Your task to perform on an android device: turn off sleep mode Image 0: 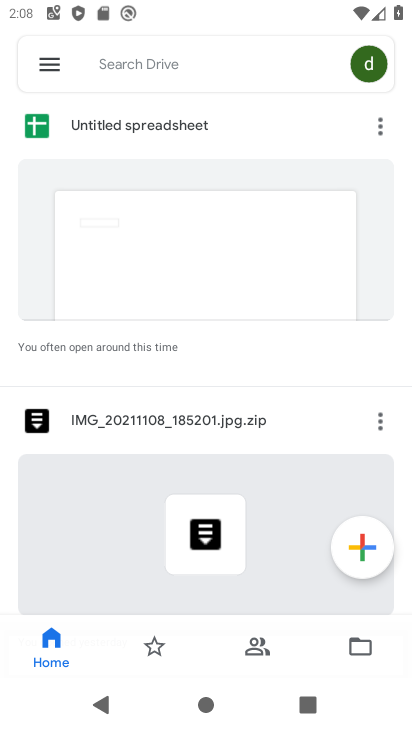
Step 0: press home button
Your task to perform on an android device: turn off sleep mode Image 1: 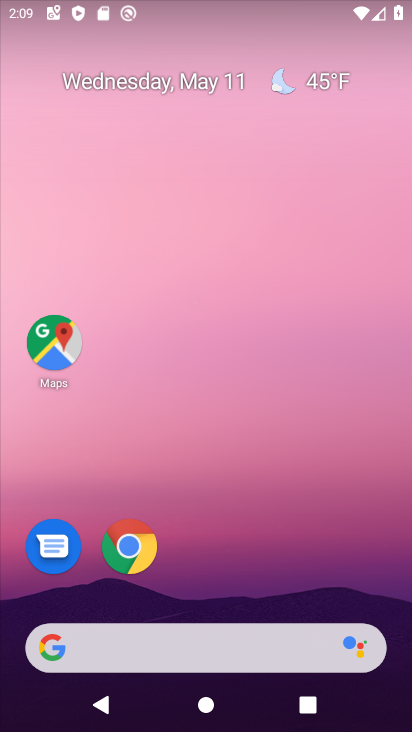
Step 1: drag from (271, 584) to (238, 1)
Your task to perform on an android device: turn off sleep mode Image 2: 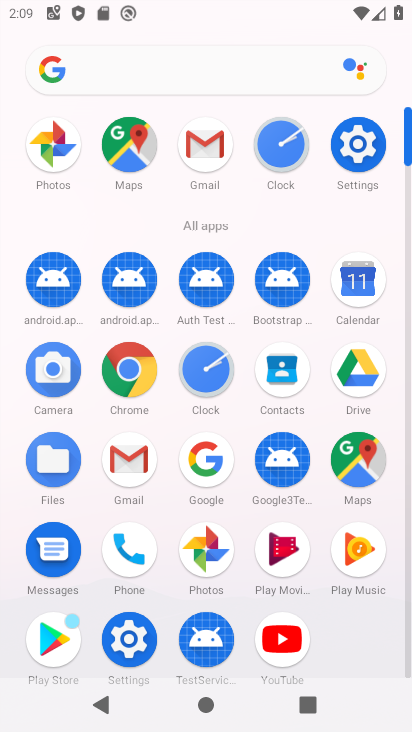
Step 2: click (339, 146)
Your task to perform on an android device: turn off sleep mode Image 3: 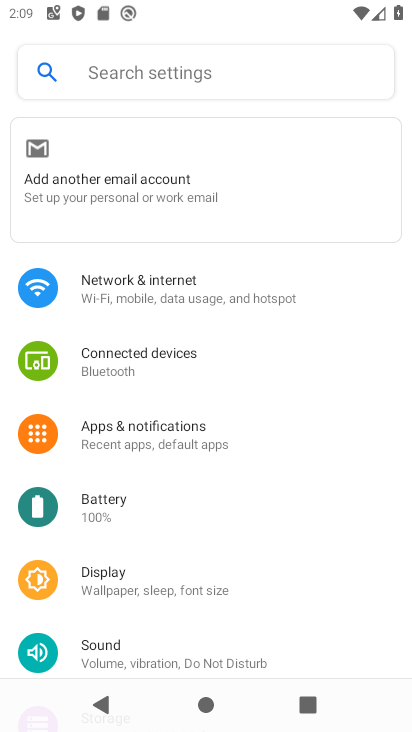
Step 3: click (237, 74)
Your task to perform on an android device: turn off sleep mode Image 4: 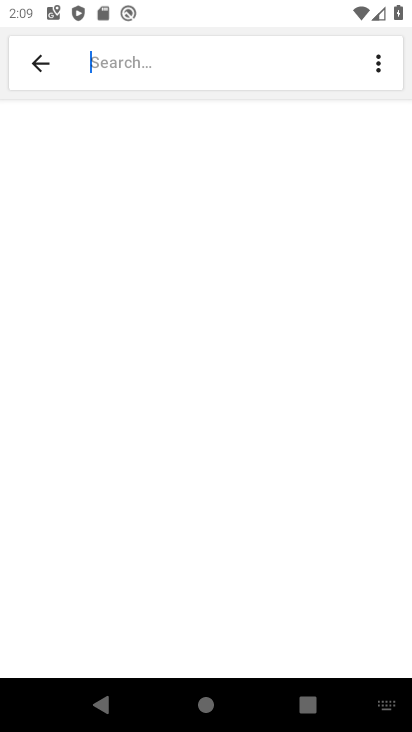
Step 4: type "sleep mode"
Your task to perform on an android device: turn off sleep mode Image 5: 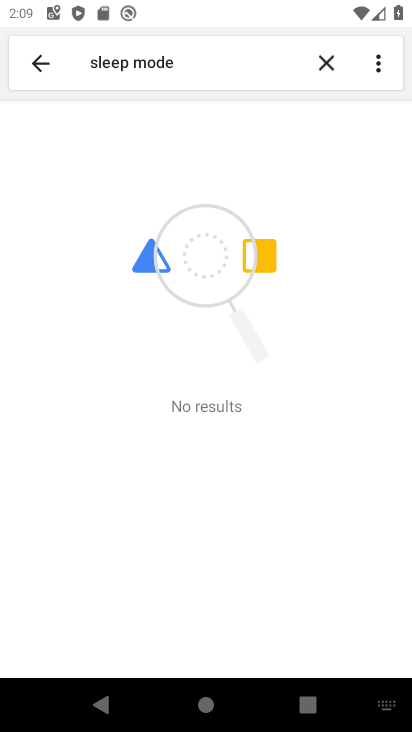
Step 5: task complete